Your task to perform on an android device: find snoozed emails in the gmail app Image 0: 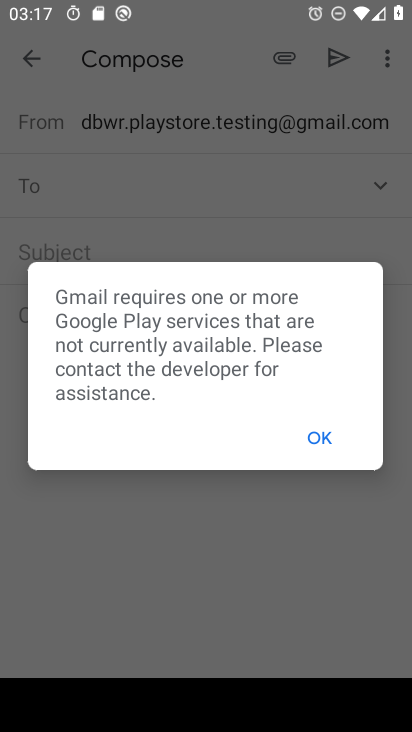
Step 0: press home button
Your task to perform on an android device: find snoozed emails in the gmail app Image 1: 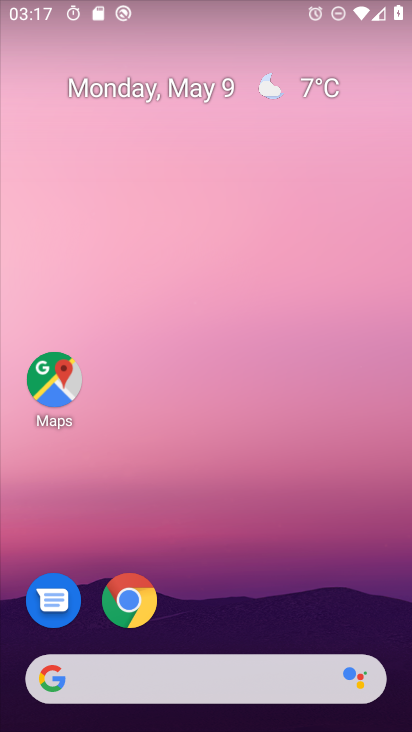
Step 1: drag from (201, 665) to (256, 199)
Your task to perform on an android device: find snoozed emails in the gmail app Image 2: 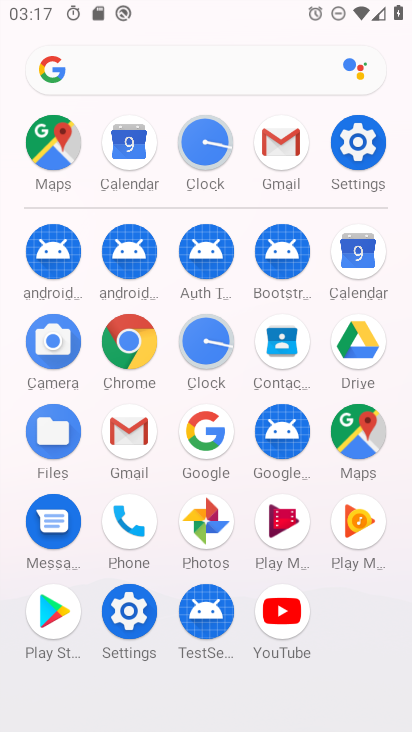
Step 2: click (290, 166)
Your task to perform on an android device: find snoozed emails in the gmail app Image 3: 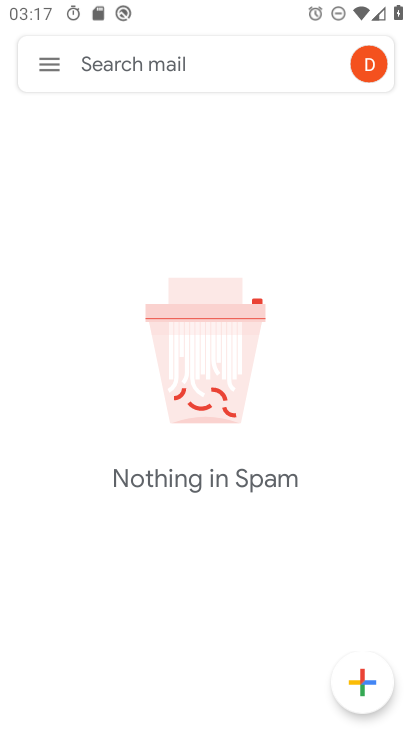
Step 3: click (52, 49)
Your task to perform on an android device: find snoozed emails in the gmail app Image 4: 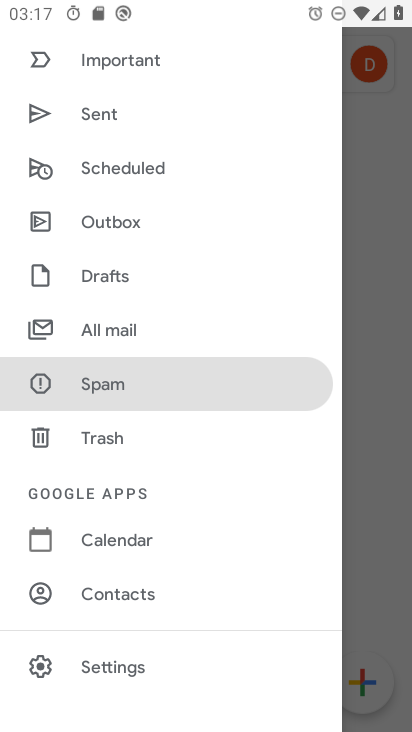
Step 4: drag from (129, 169) to (145, 498)
Your task to perform on an android device: find snoozed emails in the gmail app Image 5: 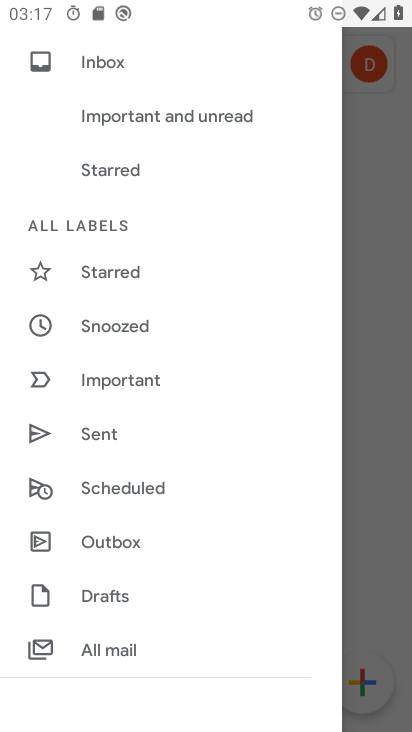
Step 5: click (142, 321)
Your task to perform on an android device: find snoozed emails in the gmail app Image 6: 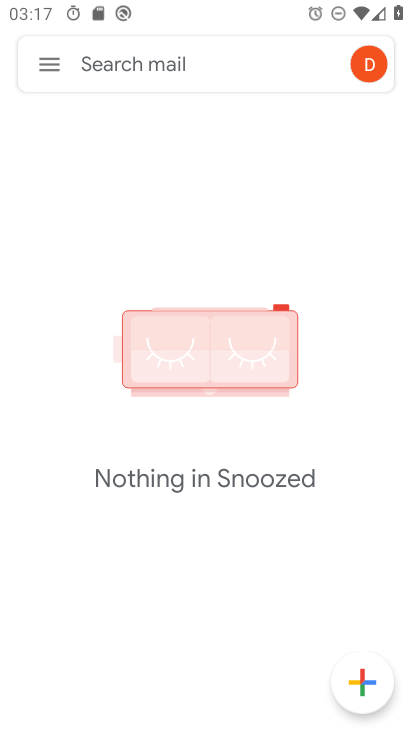
Step 6: task complete